Your task to perform on an android device: turn off notifications in google photos Image 0: 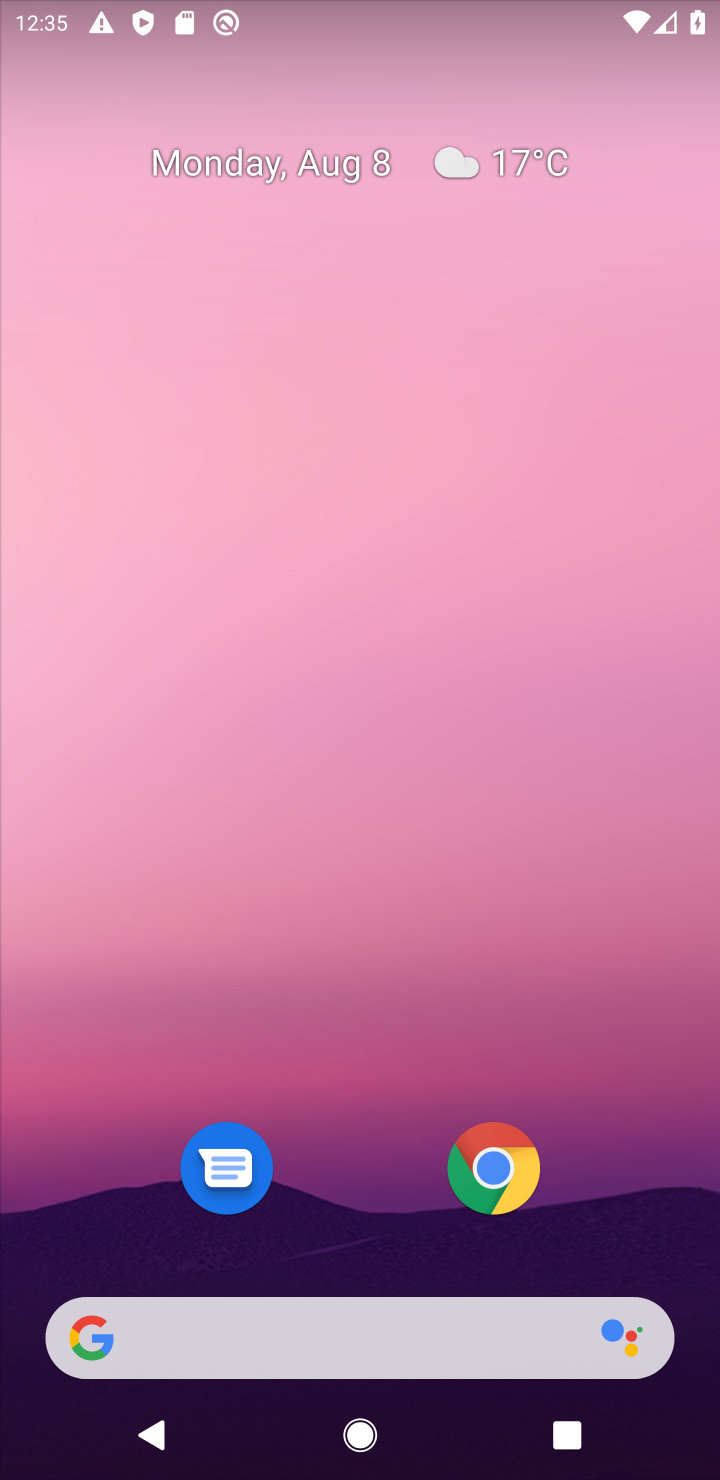
Step 0: drag from (93, 1423) to (467, 277)
Your task to perform on an android device: turn off notifications in google photos Image 1: 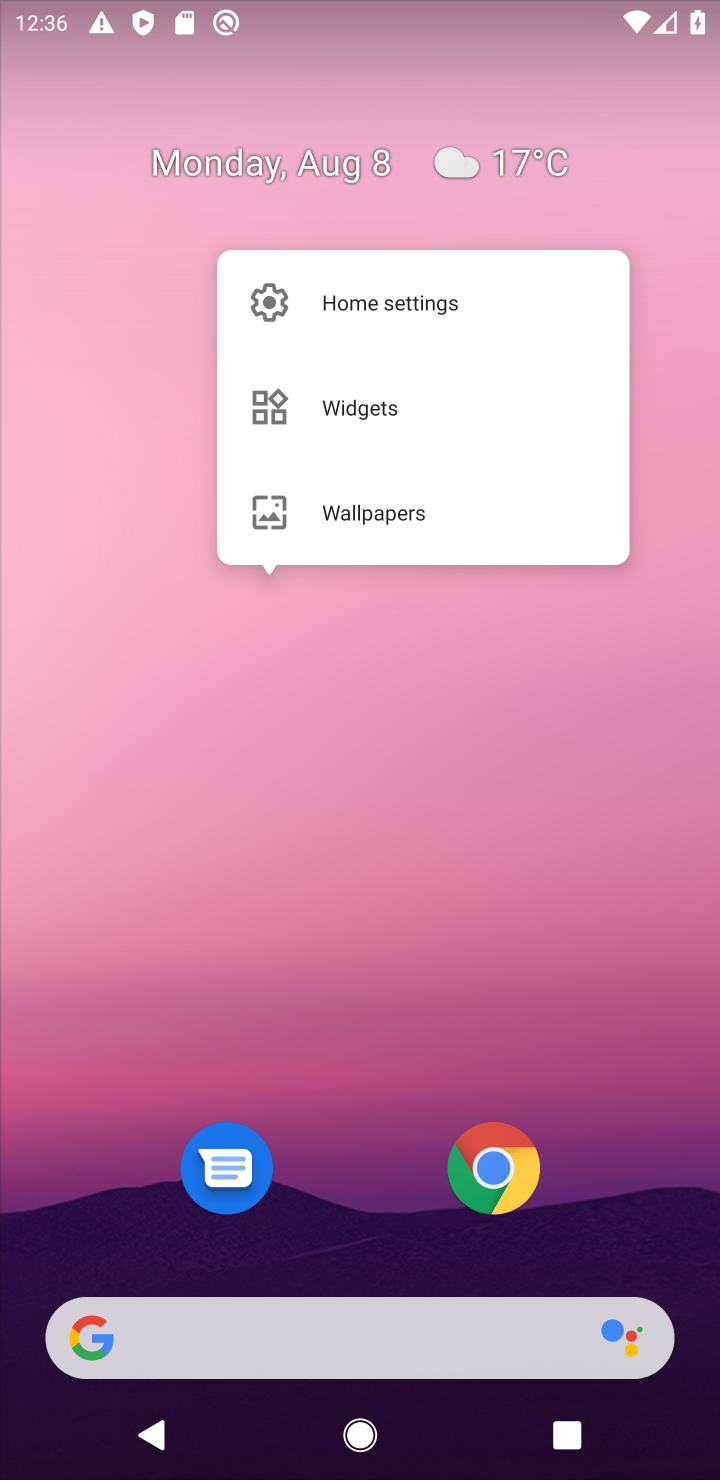
Step 1: press home button
Your task to perform on an android device: turn off notifications in google photos Image 2: 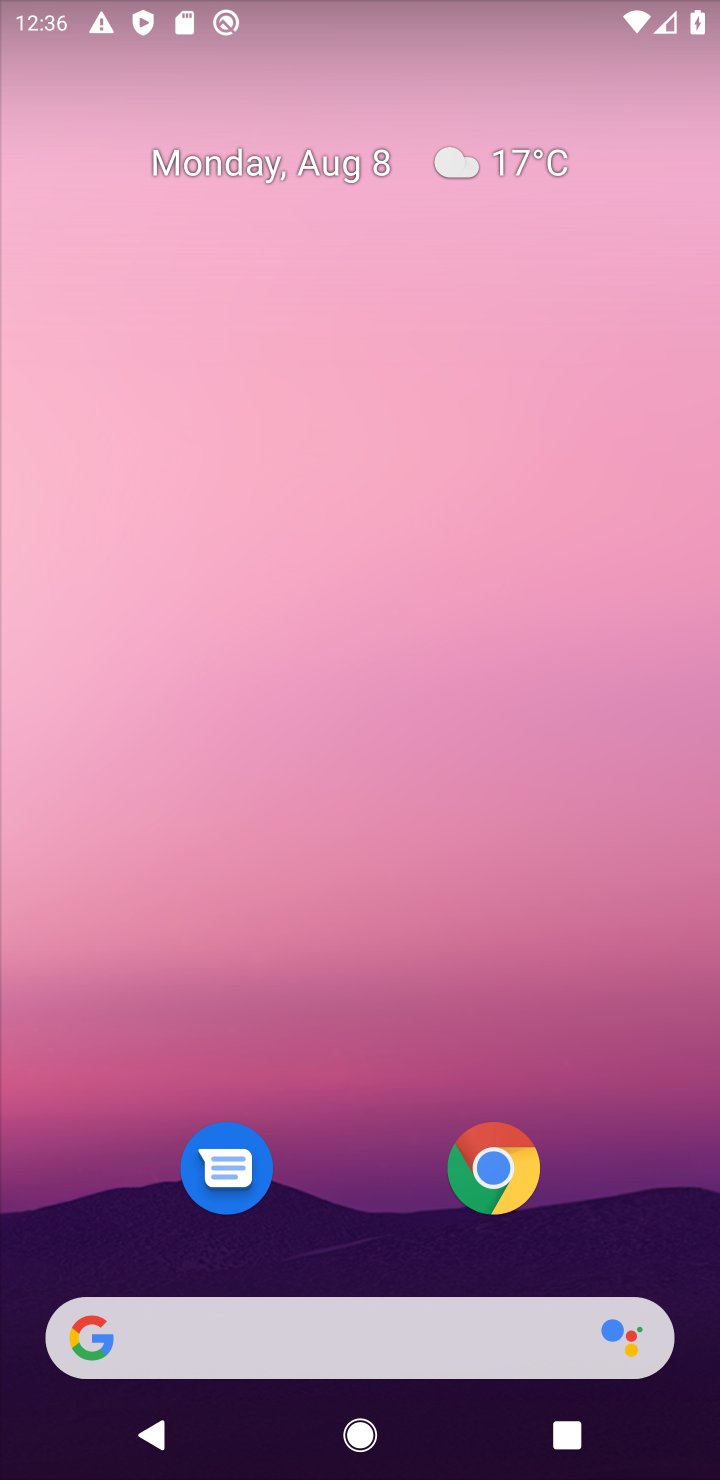
Step 2: drag from (159, 1040) to (320, 535)
Your task to perform on an android device: turn off notifications in google photos Image 3: 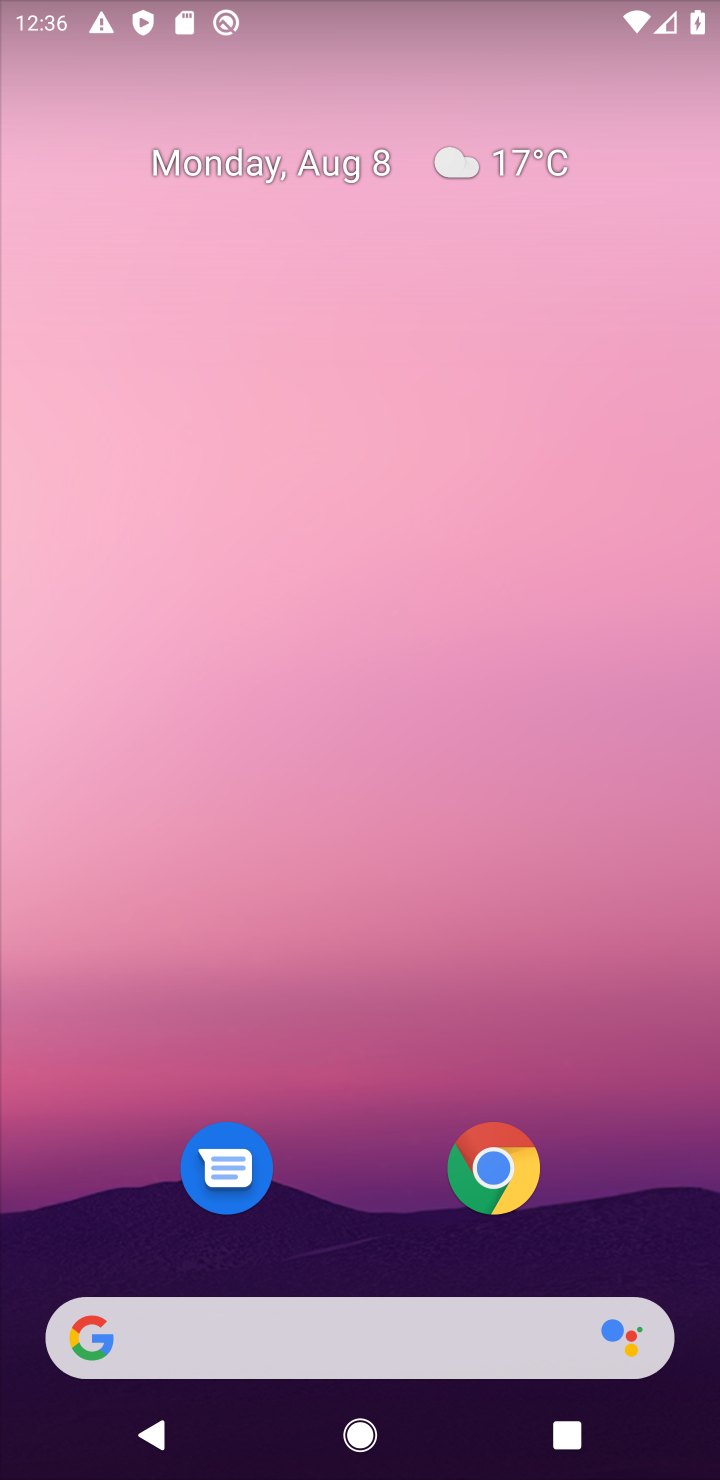
Step 3: drag from (75, 1360) to (289, 413)
Your task to perform on an android device: turn off notifications in google photos Image 4: 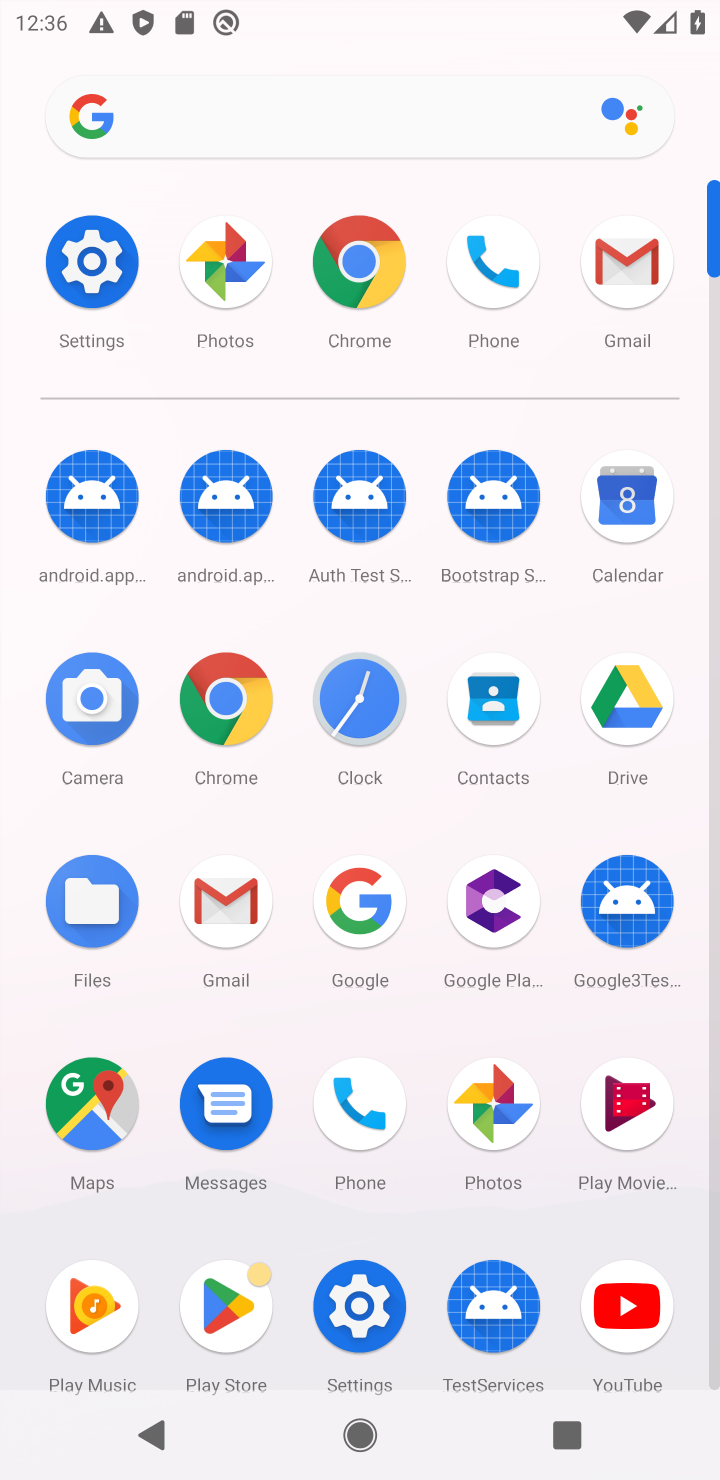
Step 4: click (512, 1094)
Your task to perform on an android device: turn off notifications in google photos Image 5: 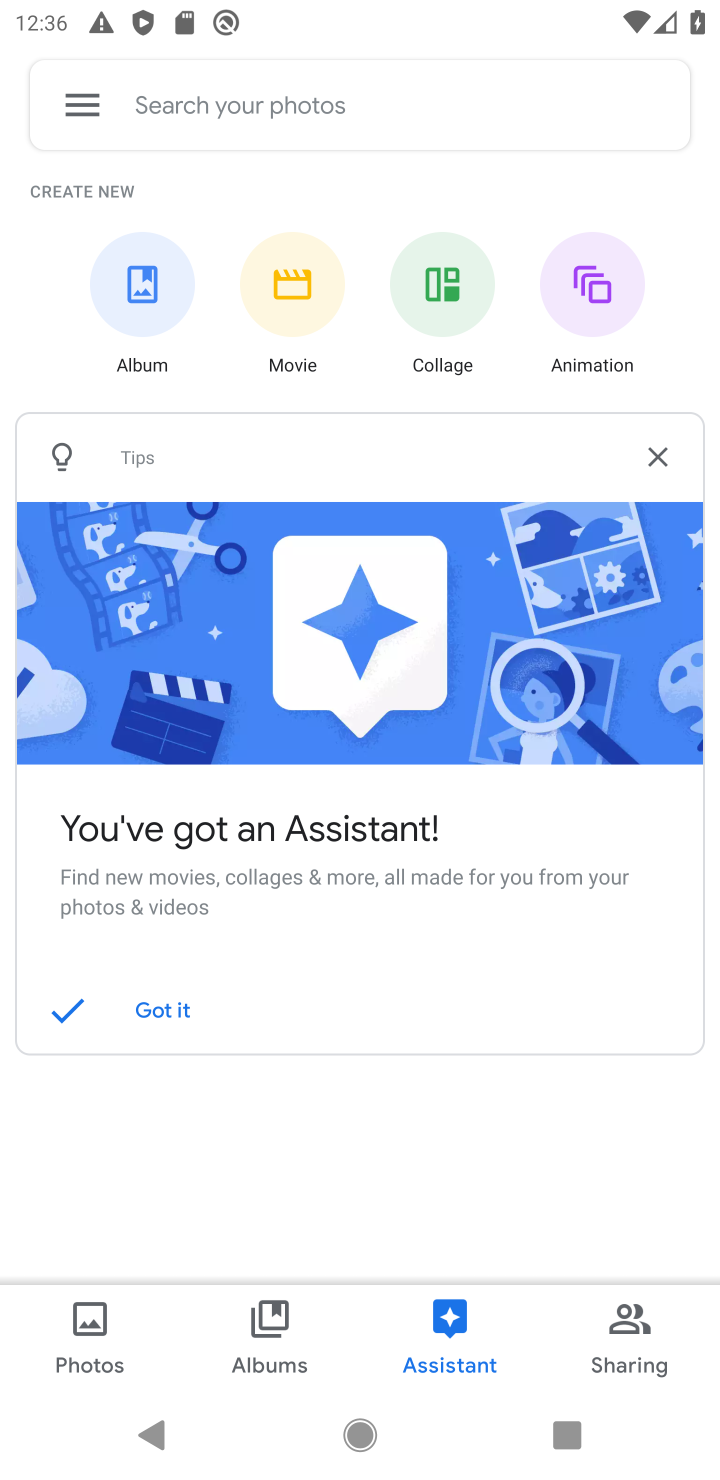
Step 5: click (80, 1338)
Your task to perform on an android device: turn off notifications in google photos Image 6: 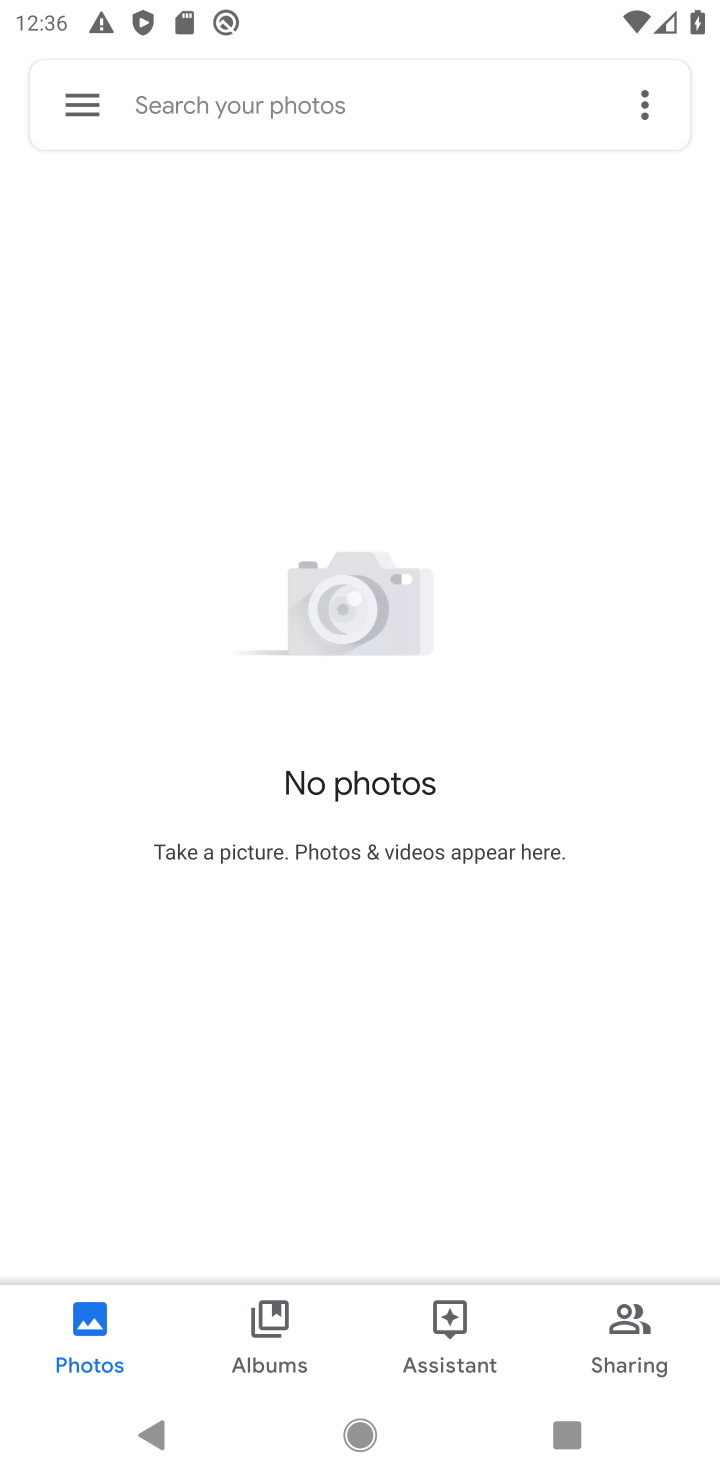
Step 6: click (86, 114)
Your task to perform on an android device: turn off notifications in google photos Image 7: 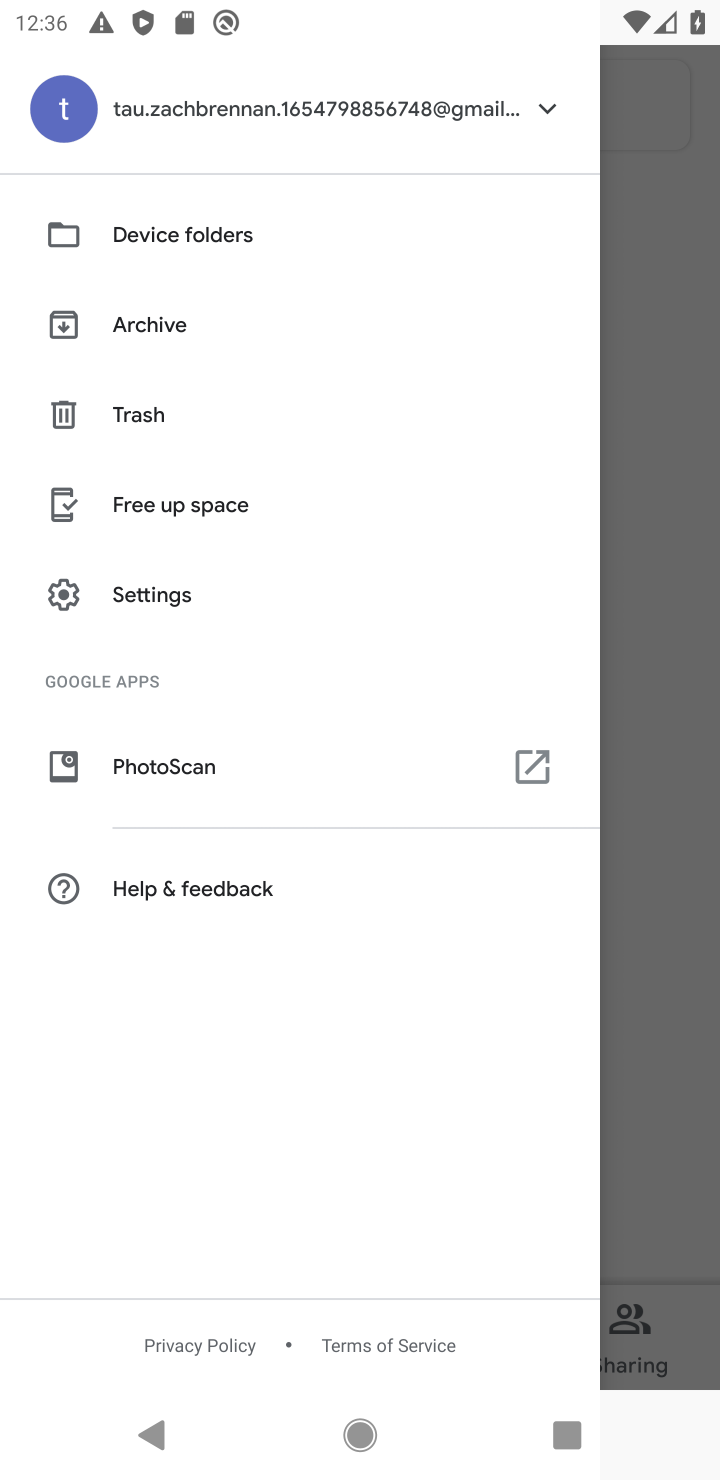
Step 7: click (160, 591)
Your task to perform on an android device: turn off notifications in google photos Image 8: 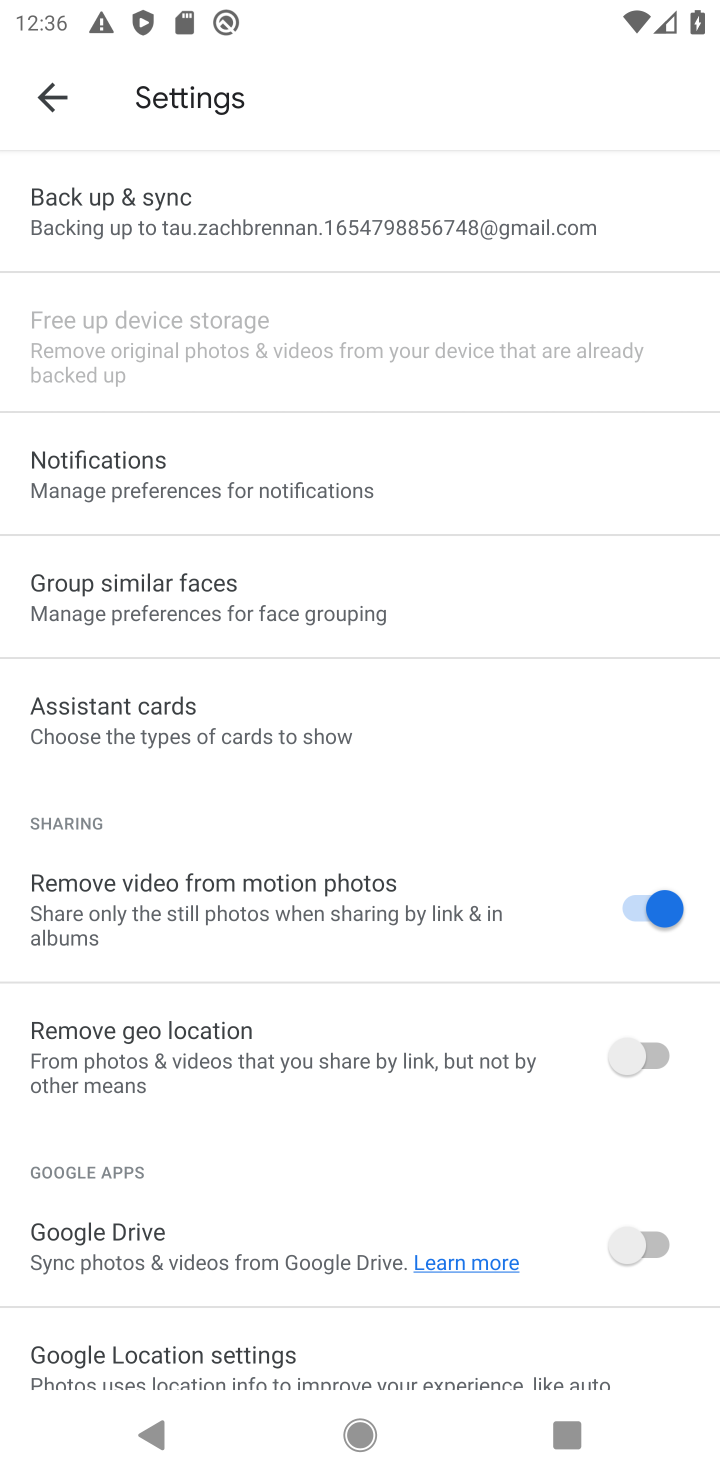
Step 8: click (112, 455)
Your task to perform on an android device: turn off notifications in google photos Image 9: 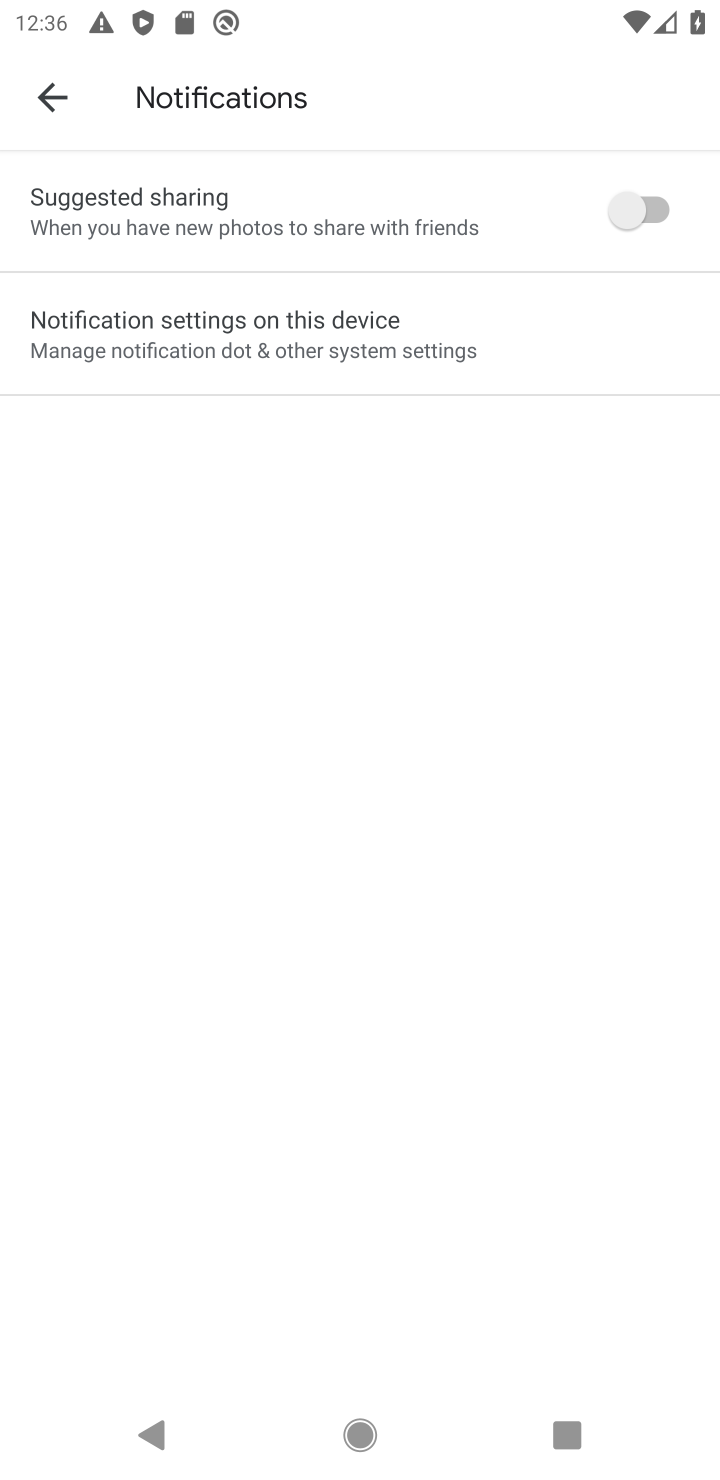
Step 9: click (194, 328)
Your task to perform on an android device: turn off notifications in google photos Image 10: 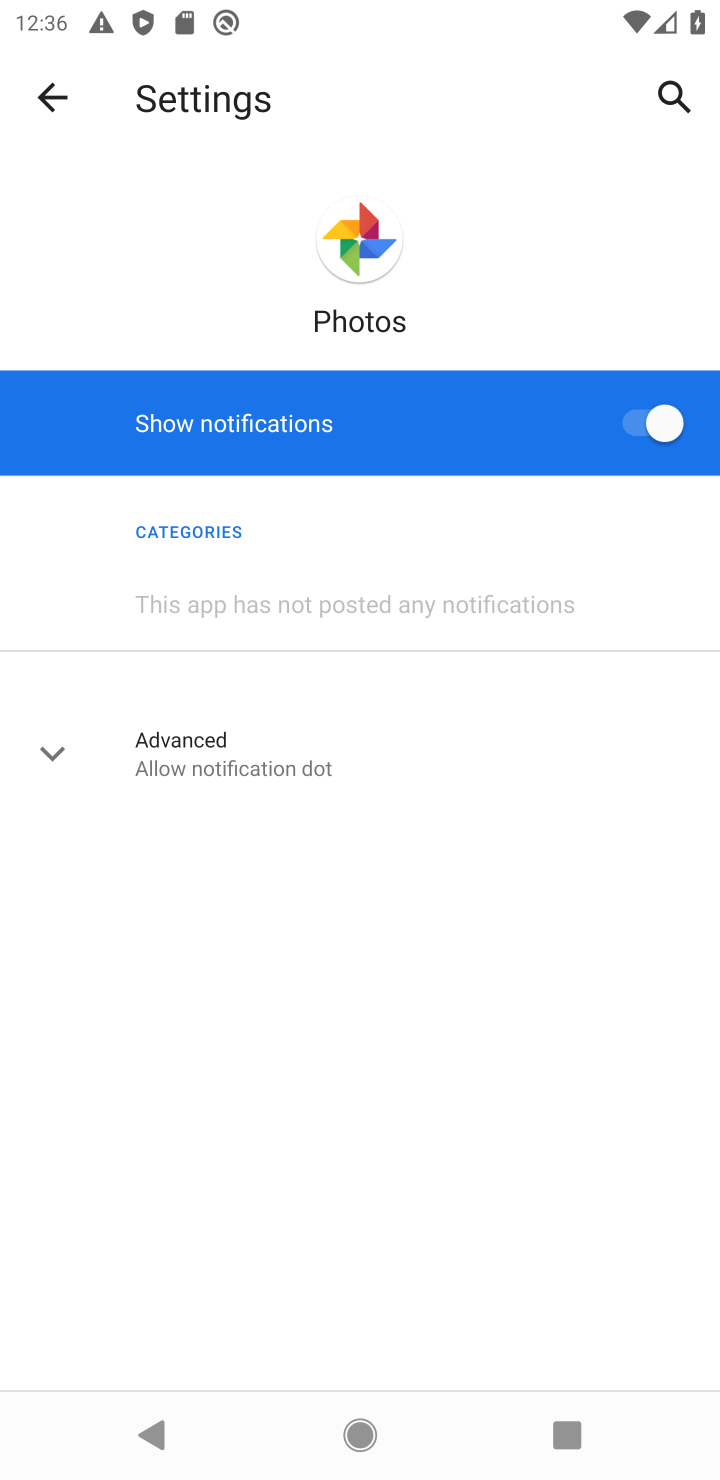
Step 10: click (653, 439)
Your task to perform on an android device: turn off notifications in google photos Image 11: 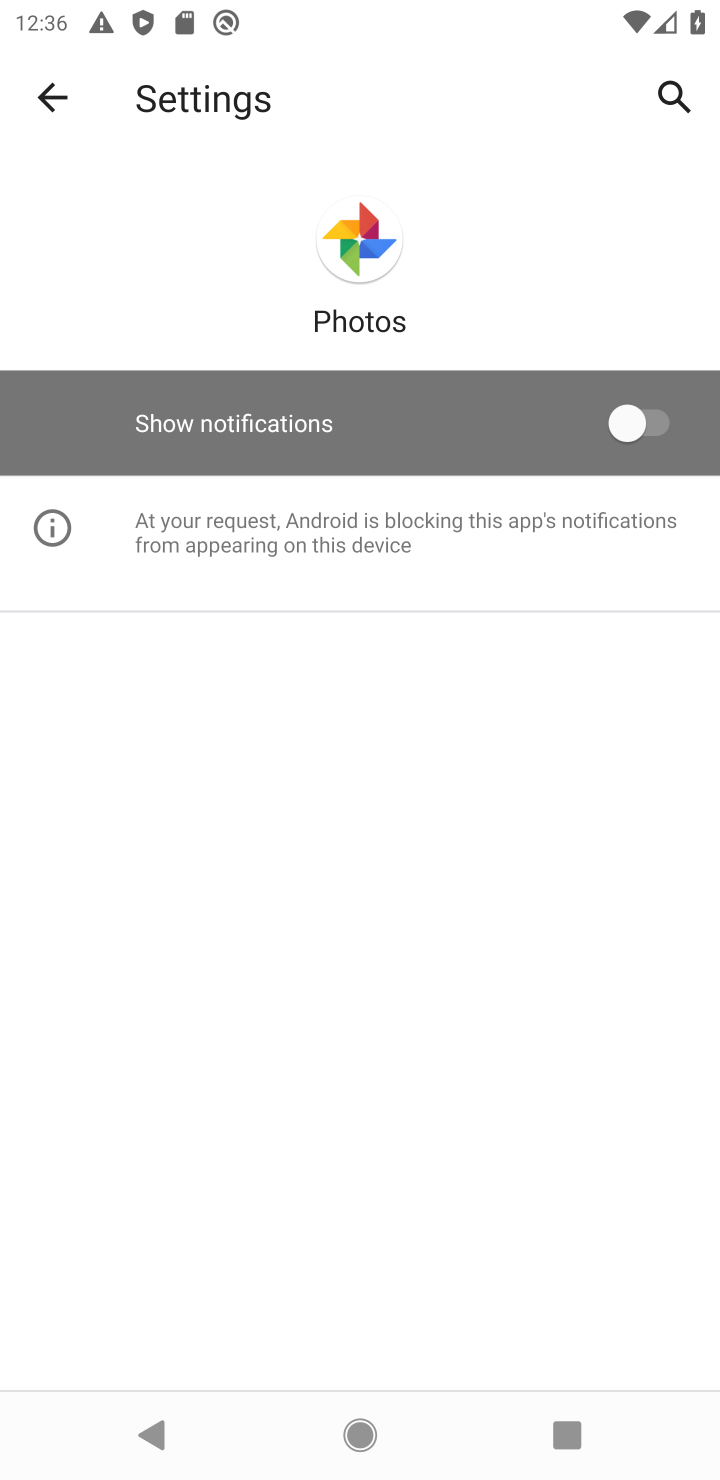
Step 11: task complete